Your task to perform on an android device: Open calendar and show me the first week of next month Image 0: 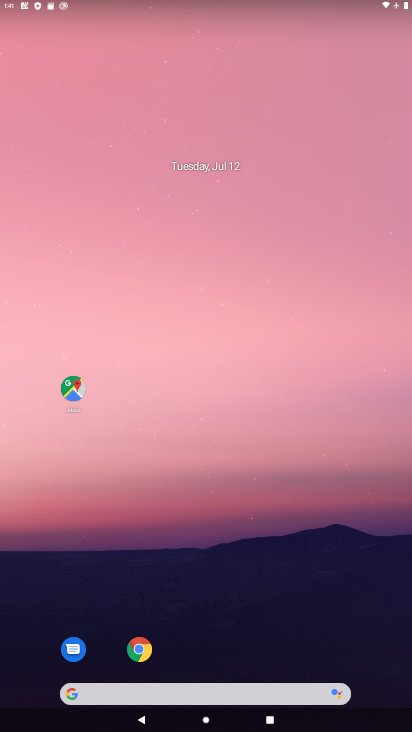
Step 0: drag from (208, 622) to (159, 180)
Your task to perform on an android device: Open calendar and show me the first week of next month Image 1: 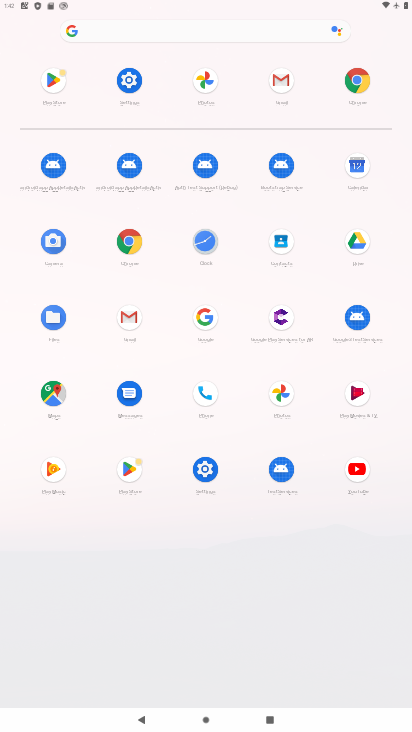
Step 1: click (124, 80)
Your task to perform on an android device: Open calendar and show me the first week of next month Image 2: 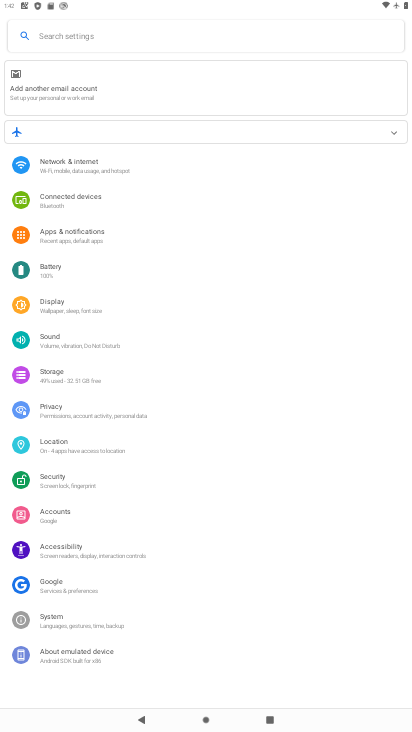
Step 2: press home button
Your task to perform on an android device: Open calendar and show me the first week of next month Image 3: 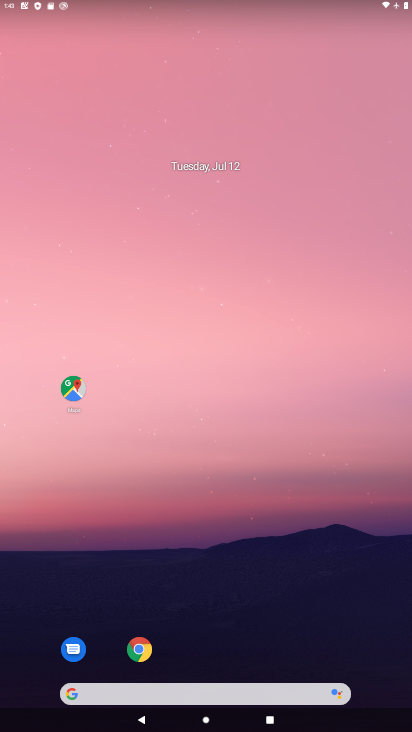
Step 3: drag from (241, 647) to (216, 25)
Your task to perform on an android device: Open calendar and show me the first week of next month Image 4: 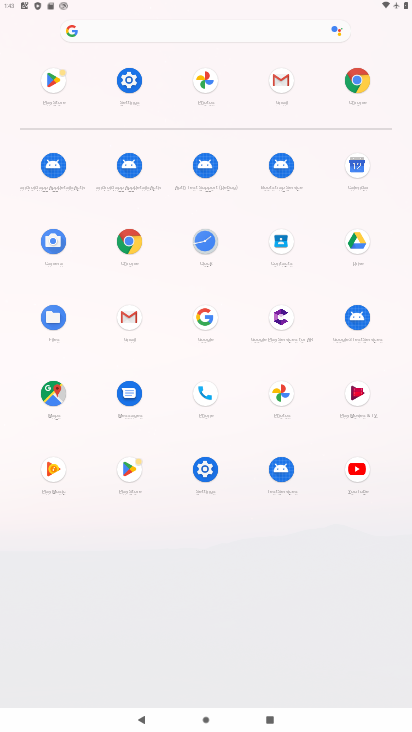
Step 4: click (343, 171)
Your task to perform on an android device: Open calendar and show me the first week of next month Image 5: 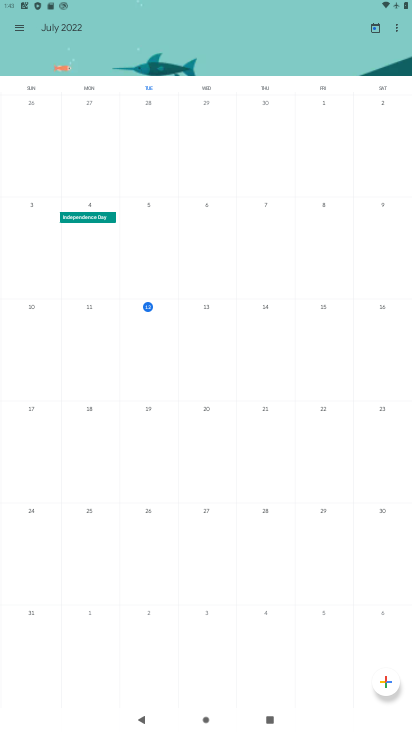
Step 5: click (76, 27)
Your task to perform on an android device: Open calendar and show me the first week of next month Image 6: 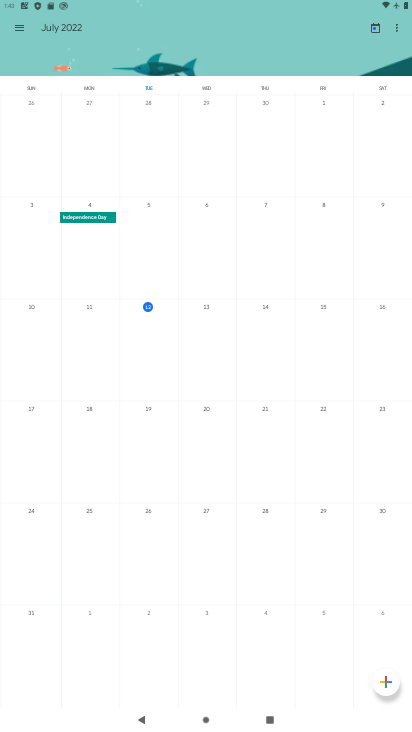
Step 6: task complete